Your task to perform on an android device: Open location settings Image 0: 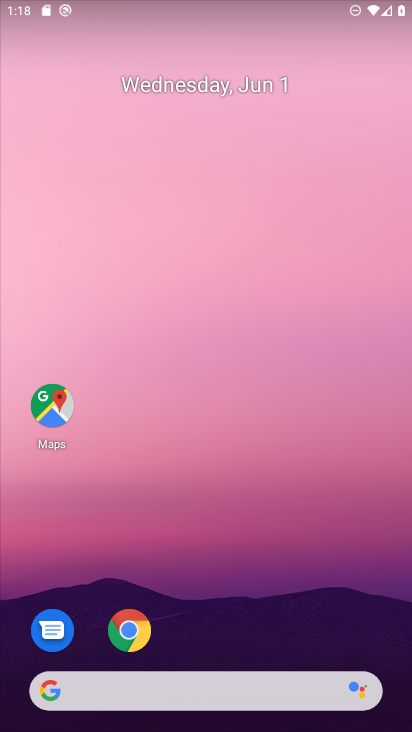
Step 0: press home button
Your task to perform on an android device: Open location settings Image 1: 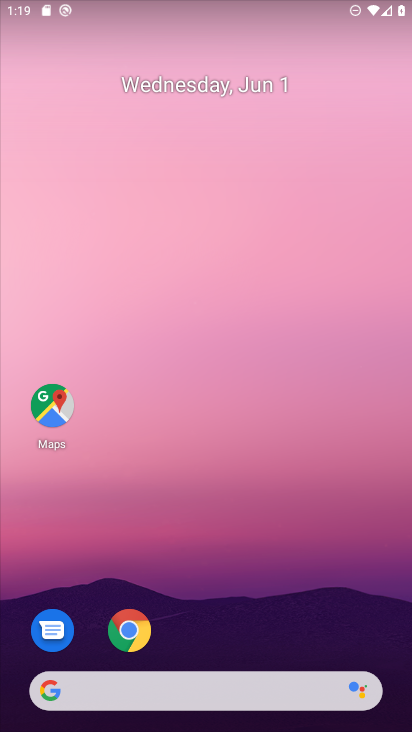
Step 1: drag from (268, 637) to (246, 5)
Your task to perform on an android device: Open location settings Image 2: 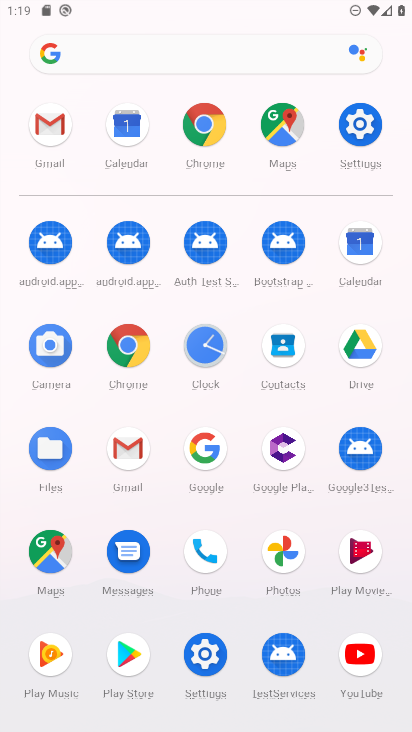
Step 2: click (363, 127)
Your task to perform on an android device: Open location settings Image 3: 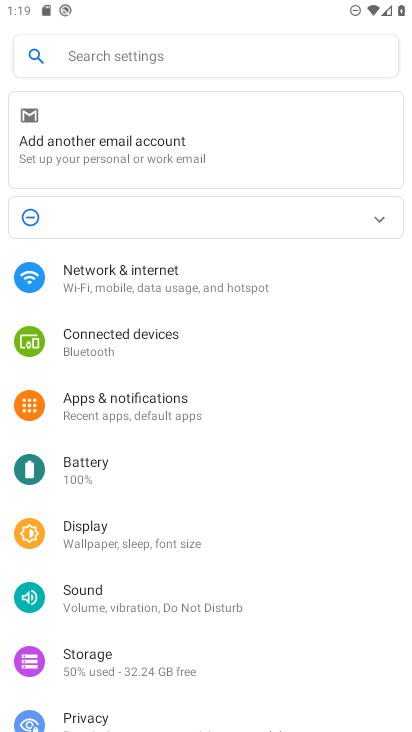
Step 3: drag from (335, 630) to (338, 279)
Your task to perform on an android device: Open location settings Image 4: 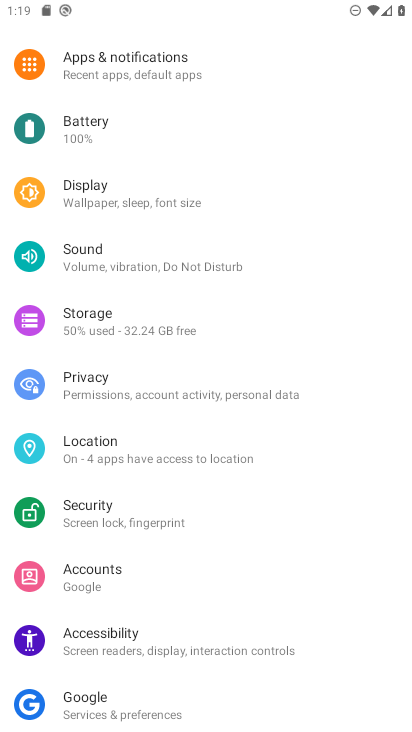
Step 4: click (92, 442)
Your task to perform on an android device: Open location settings Image 5: 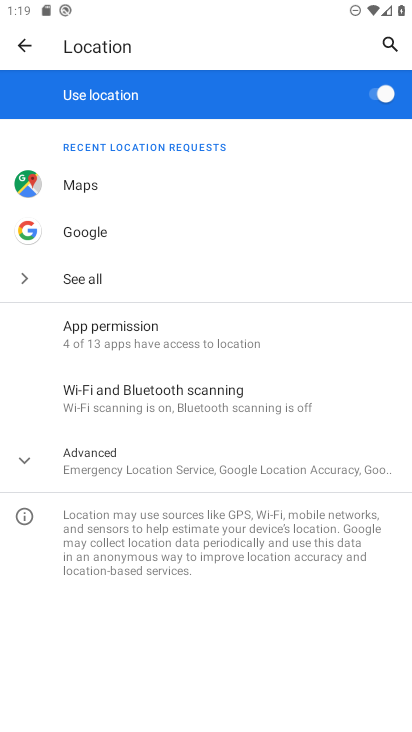
Step 5: task complete